Your task to perform on an android device: Go to privacy settings Image 0: 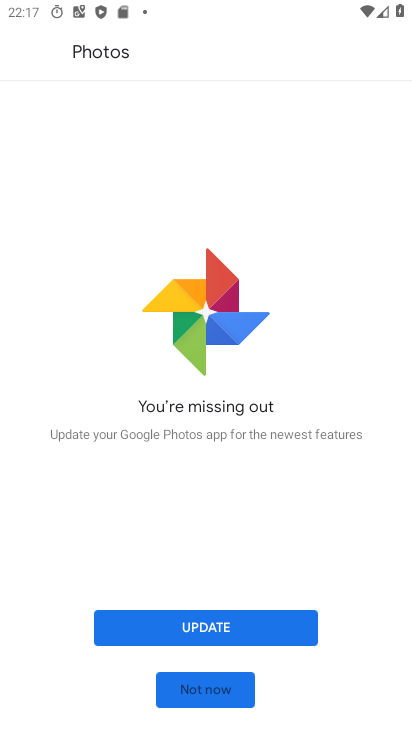
Step 0: press home button
Your task to perform on an android device: Go to privacy settings Image 1: 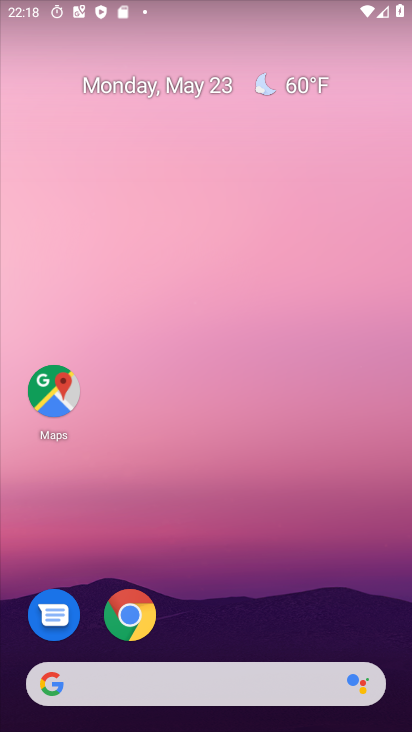
Step 1: click (136, 614)
Your task to perform on an android device: Go to privacy settings Image 2: 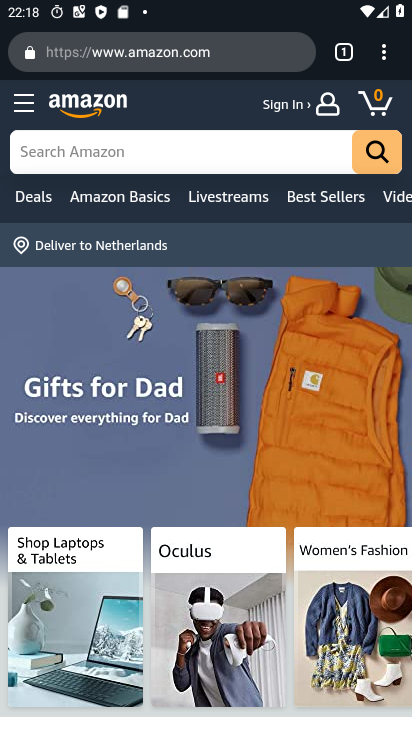
Step 2: click (371, 46)
Your task to perform on an android device: Go to privacy settings Image 3: 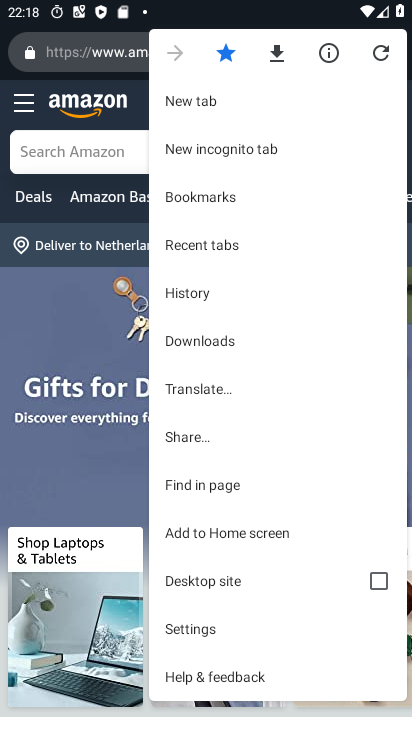
Step 3: click (196, 634)
Your task to perform on an android device: Go to privacy settings Image 4: 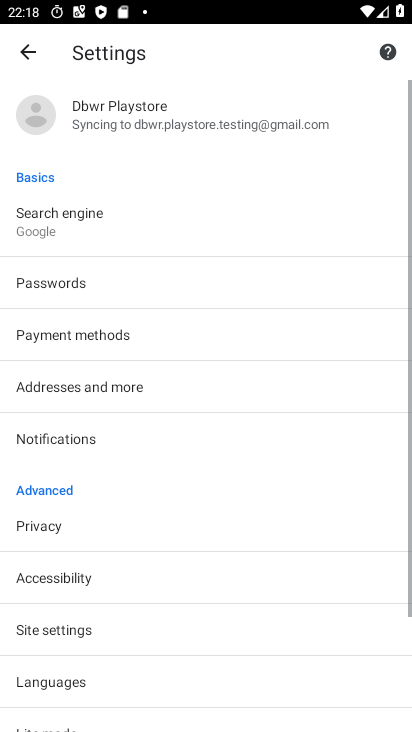
Step 4: click (47, 529)
Your task to perform on an android device: Go to privacy settings Image 5: 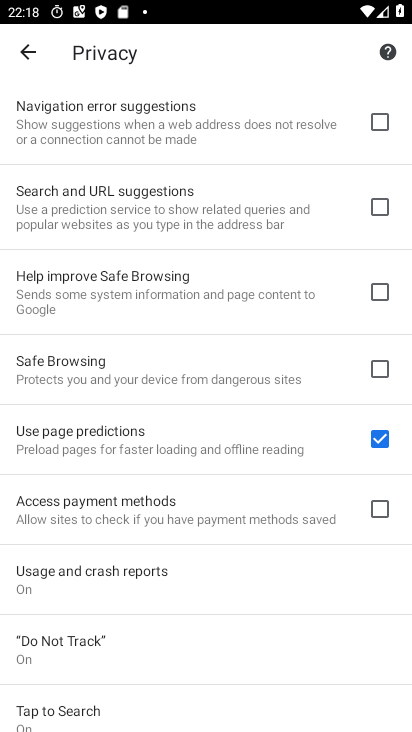
Step 5: task complete